Your task to perform on an android device: turn off picture-in-picture Image 0: 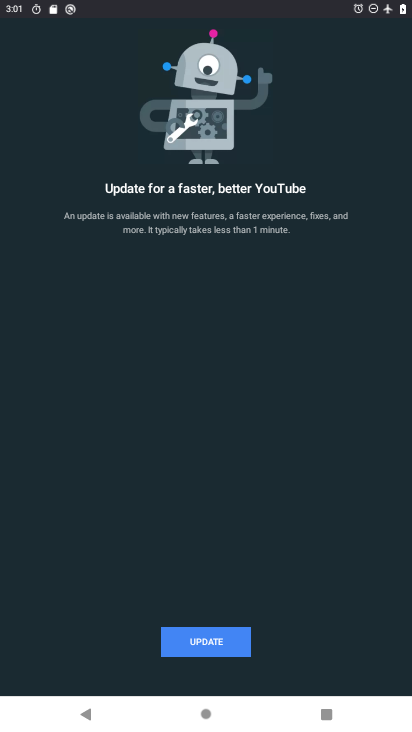
Step 0: press home button
Your task to perform on an android device: turn off picture-in-picture Image 1: 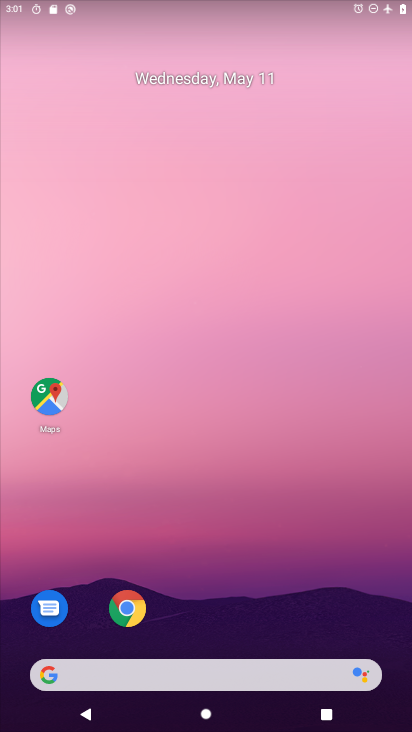
Step 1: drag from (197, 656) to (275, 185)
Your task to perform on an android device: turn off picture-in-picture Image 2: 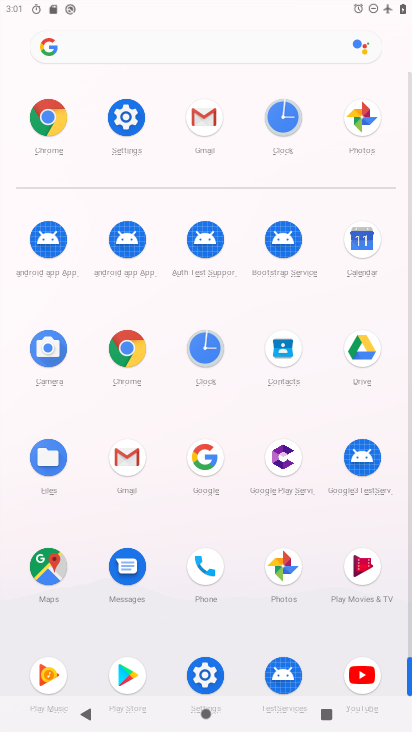
Step 2: click (138, 105)
Your task to perform on an android device: turn off picture-in-picture Image 3: 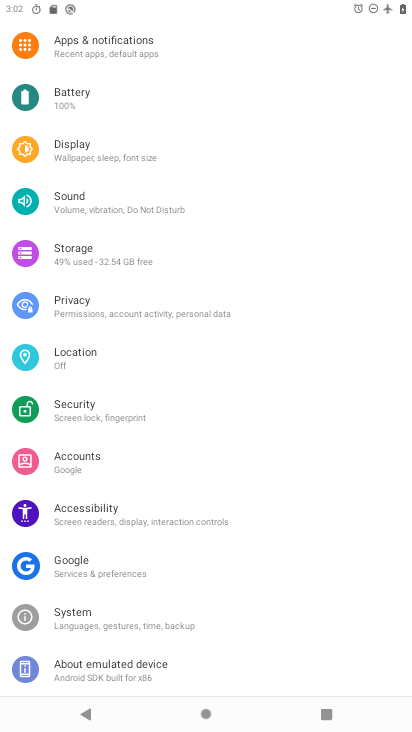
Step 3: drag from (171, 585) to (193, 369)
Your task to perform on an android device: turn off picture-in-picture Image 4: 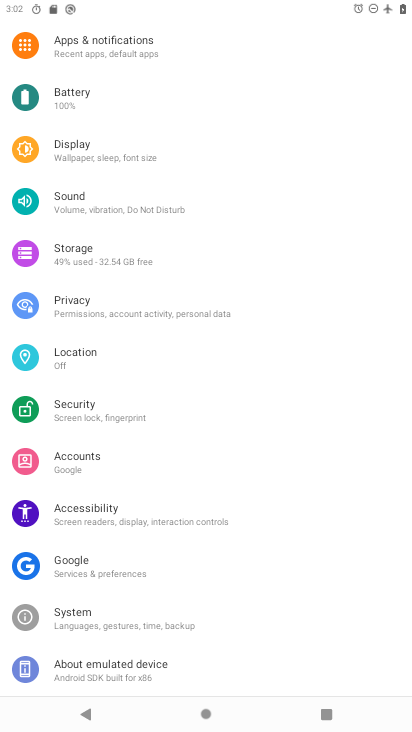
Step 4: drag from (199, 291) to (196, 595)
Your task to perform on an android device: turn off picture-in-picture Image 5: 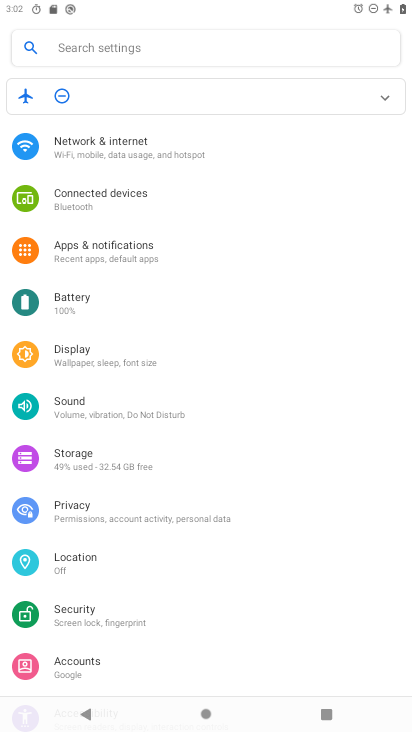
Step 5: drag from (210, 505) to (248, 287)
Your task to perform on an android device: turn off picture-in-picture Image 6: 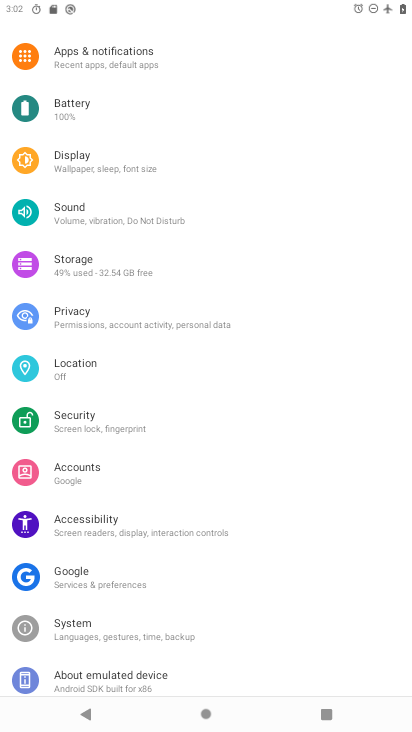
Step 6: click (164, 72)
Your task to perform on an android device: turn off picture-in-picture Image 7: 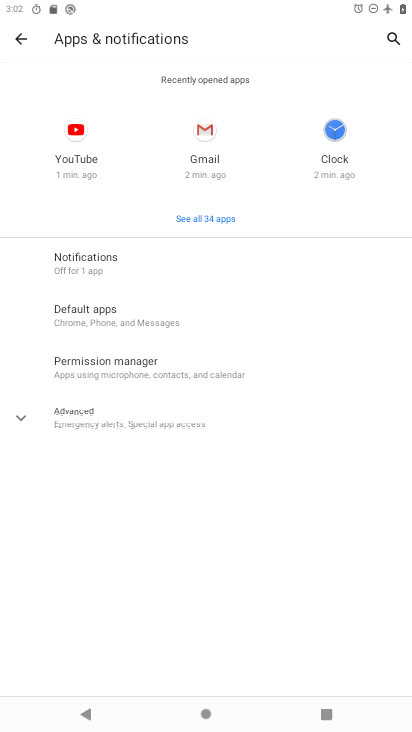
Step 7: click (194, 406)
Your task to perform on an android device: turn off picture-in-picture Image 8: 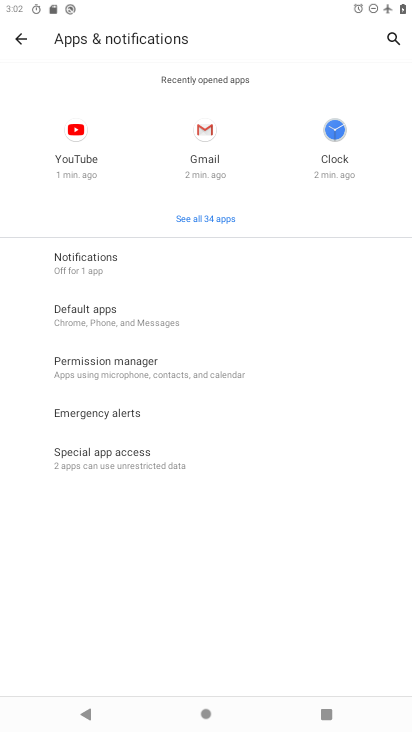
Step 8: drag from (188, 551) to (230, 260)
Your task to perform on an android device: turn off picture-in-picture Image 9: 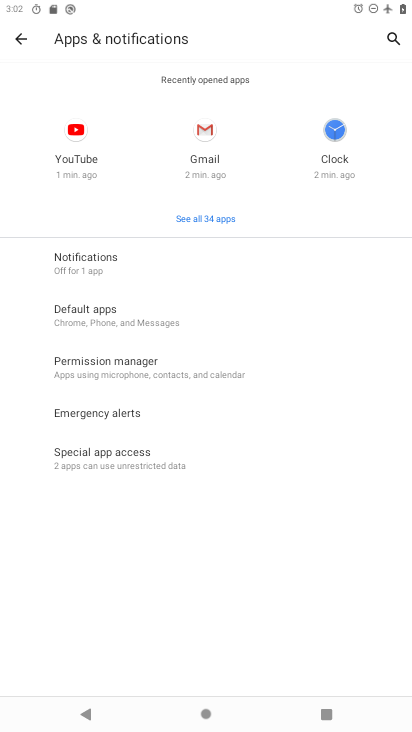
Step 9: click (160, 472)
Your task to perform on an android device: turn off picture-in-picture Image 10: 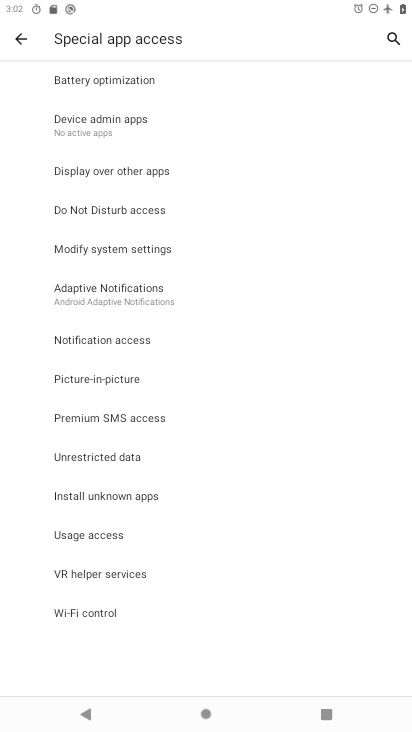
Step 10: drag from (201, 263) to (199, 480)
Your task to perform on an android device: turn off picture-in-picture Image 11: 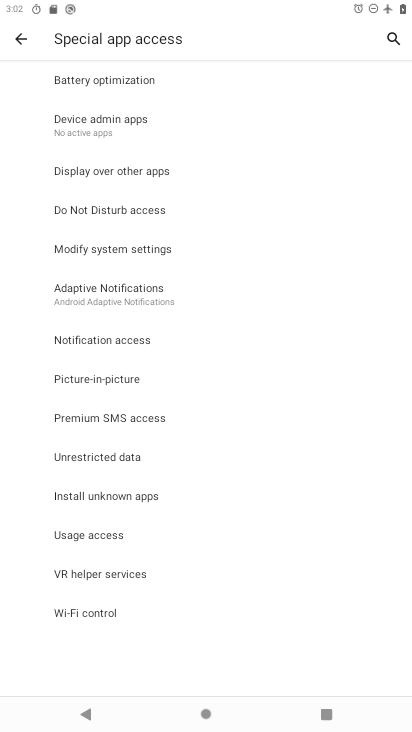
Step 11: click (132, 378)
Your task to perform on an android device: turn off picture-in-picture Image 12: 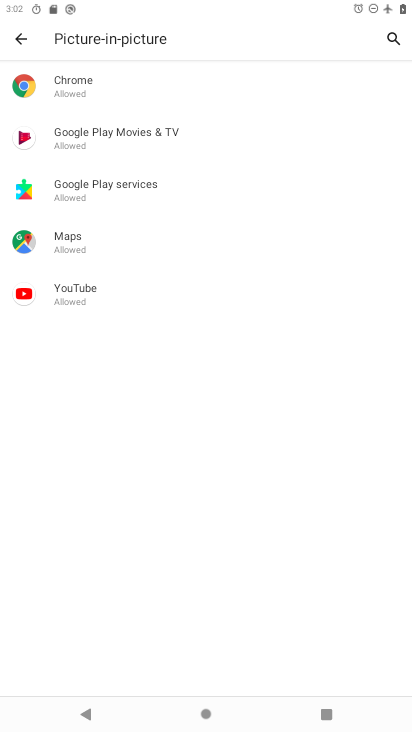
Step 12: click (242, 81)
Your task to perform on an android device: turn off picture-in-picture Image 13: 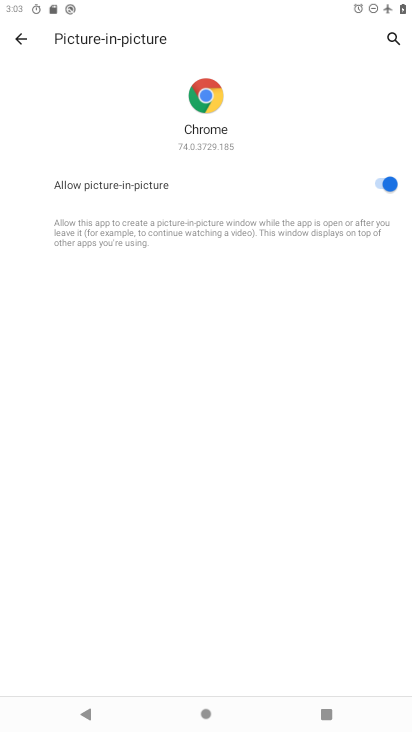
Step 13: click (380, 183)
Your task to perform on an android device: turn off picture-in-picture Image 14: 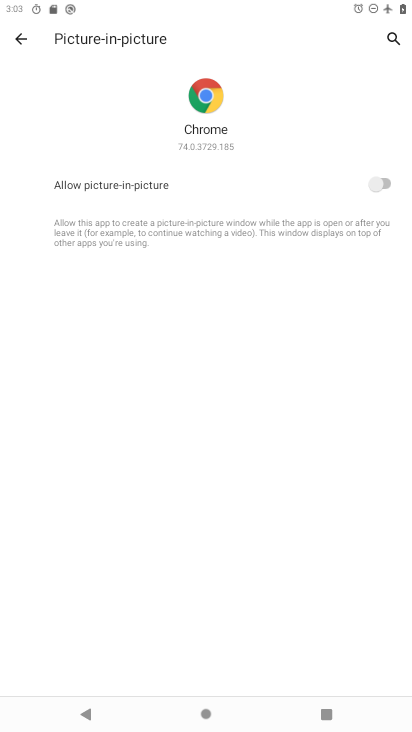
Step 14: task complete